Your task to perform on an android device: turn on translation in the chrome app Image 0: 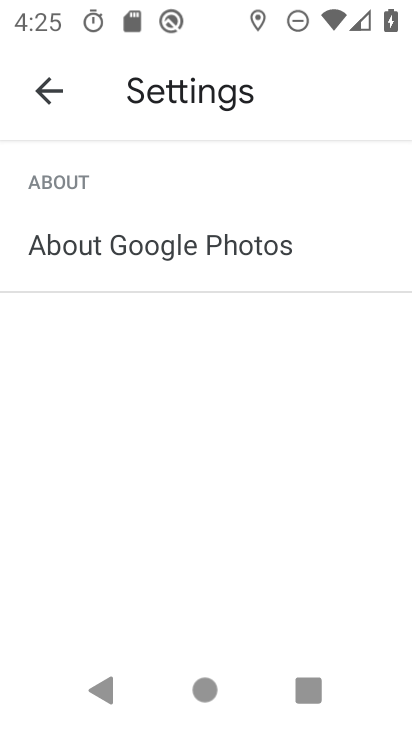
Step 0: press home button
Your task to perform on an android device: turn on translation in the chrome app Image 1: 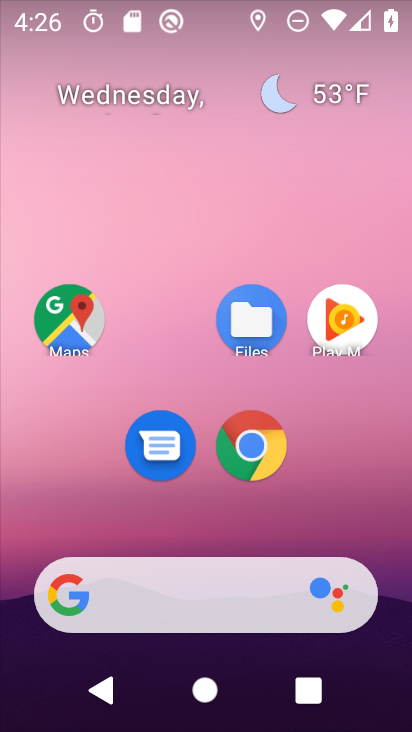
Step 1: click (264, 450)
Your task to perform on an android device: turn on translation in the chrome app Image 2: 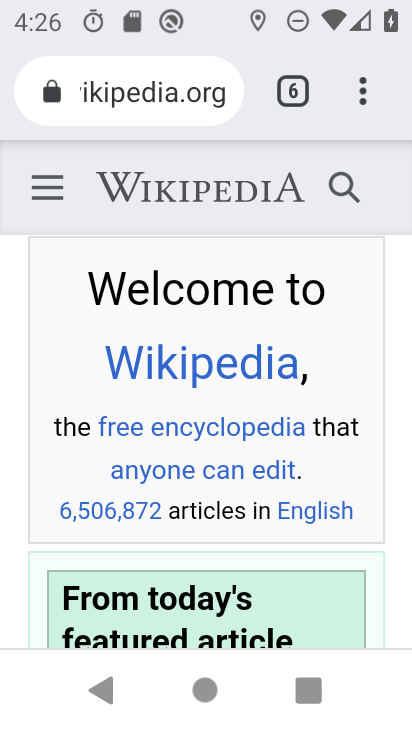
Step 2: click (360, 90)
Your task to perform on an android device: turn on translation in the chrome app Image 3: 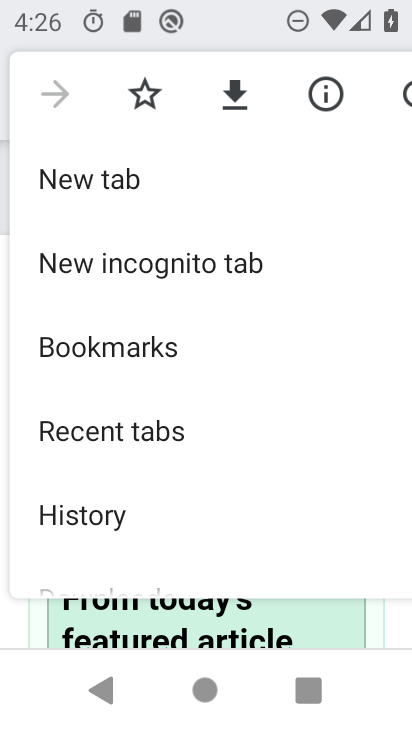
Step 3: drag from (248, 499) to (241, 191)
Your task to perform on an android device: turn on translation in the chrome app Image 4: 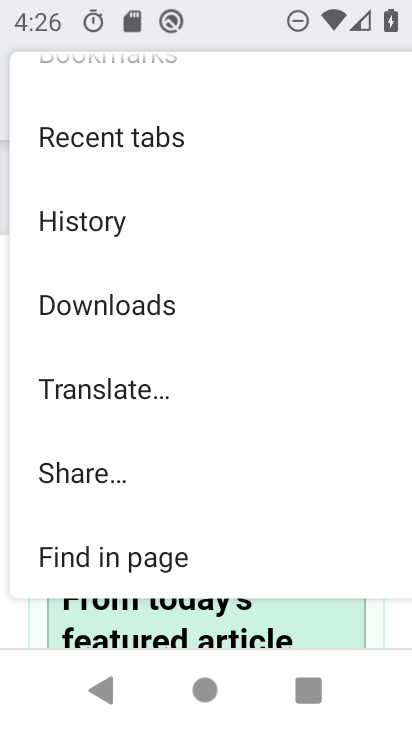
Step 4: click (198, 371)
Your task to perform on an android device: turn on translation in the chrome app Image 5: 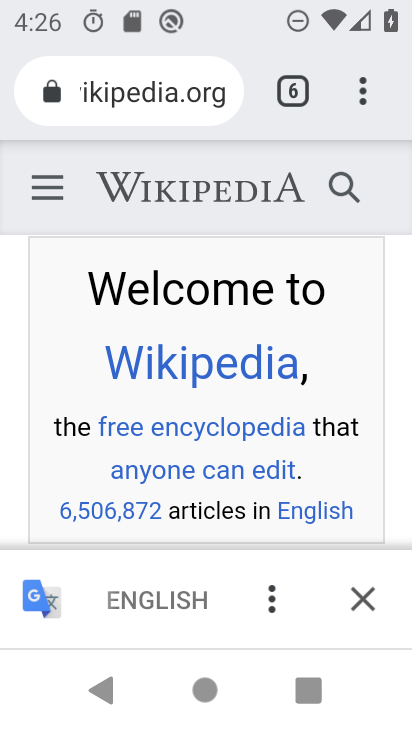
Step 5: click (266, 591)
Your task to perform on an android device: turn on translation in the chrome app Image 6: 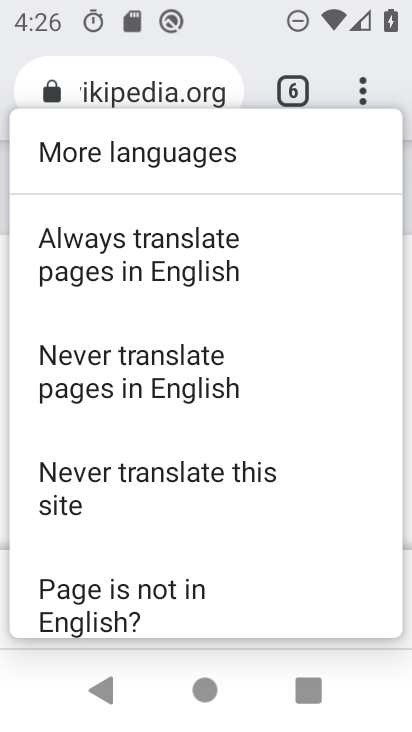
Step 6: click (178, 253)
Your task to perform on an android device: turn on translation in the chrome app Image 7: 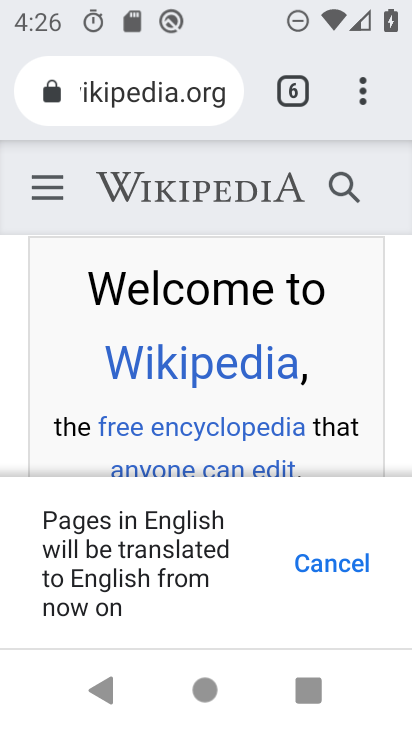
Step 7: task complete